Your task to perform on an android device: Go to privacy settings Image 0: 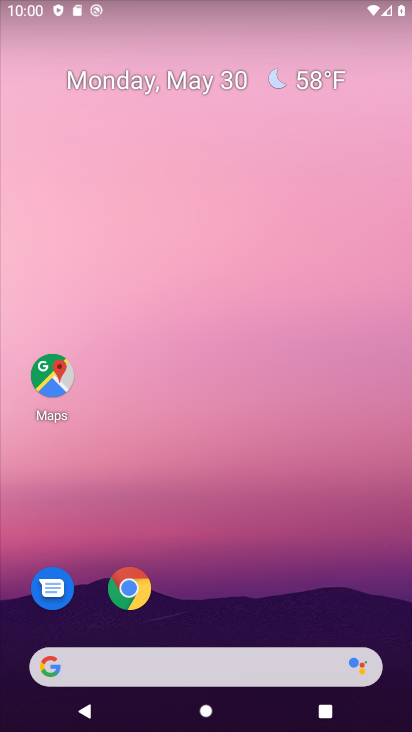
Step 0: drag from (207, 682) to (152, 148)
Your task to perform on an android device: Go to privacy settings Image 1: 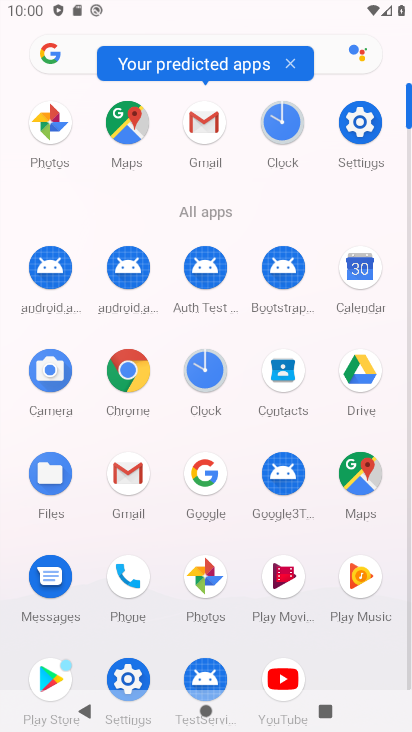
Step 1: click (365, 134)
Your task to perform on an android device: Go to privacy settings Image 2: 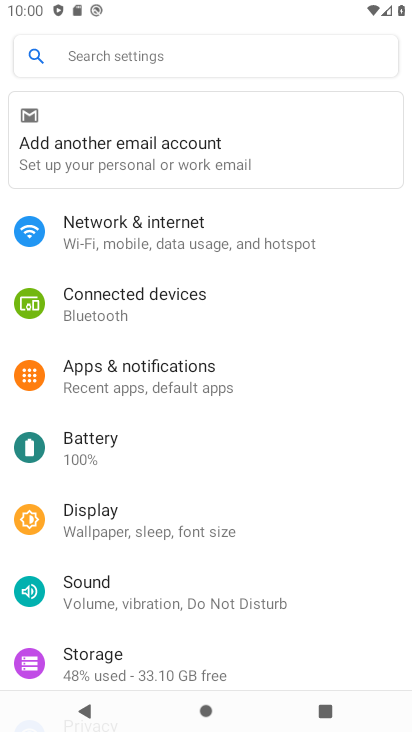
Step 2: drag from (129, 642) to (57, 34)
Your task to perform on an android device: Go to privacy settings Image 3: 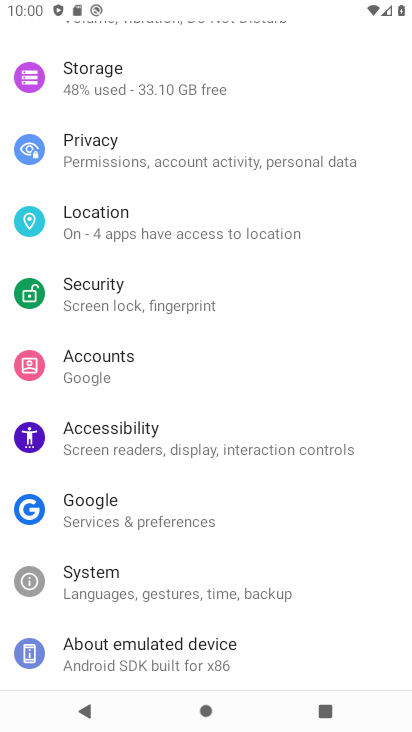
Step 3: click (124, 151)
Your task to perform on an android device: Go to privacy settings Image 4: 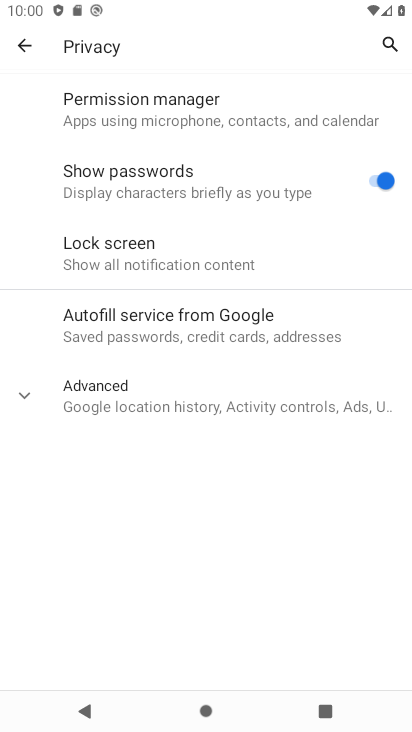
Step 4: click (181, 411)
Your task to perform on an android device: Go to privacy settings Image 5: 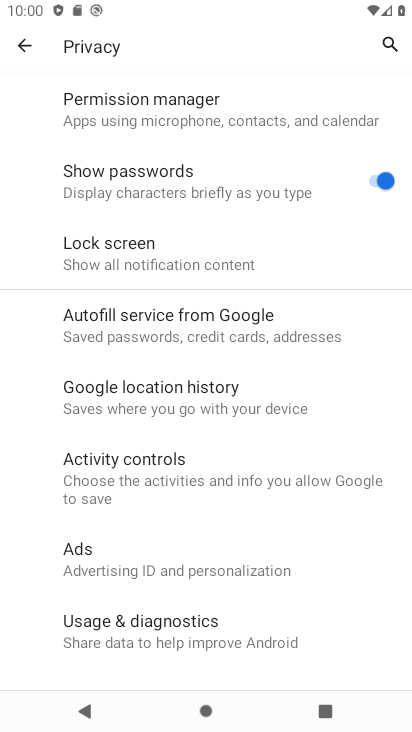
Step 5: task complete